Your task to perform on an android device: Go to CNN.com Image 0: 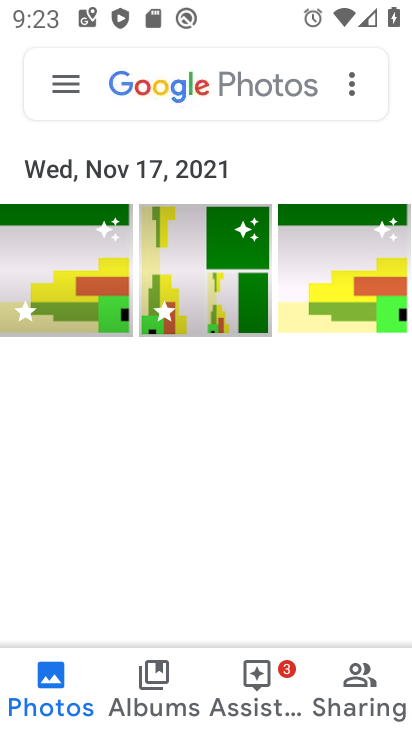
Step 0: press home button
Your task to perform on an android device: Go to CNN.com Image 1: 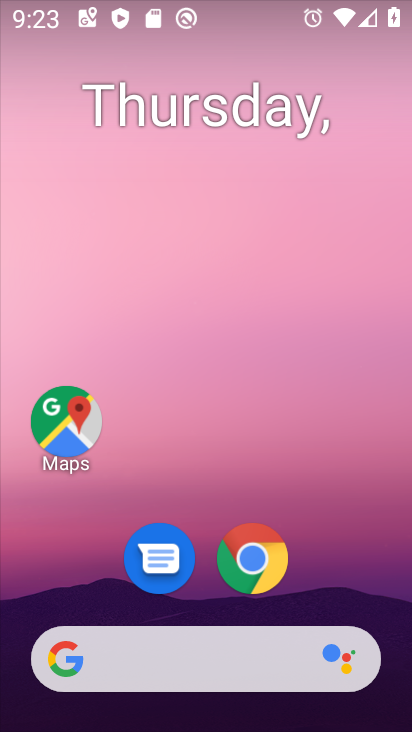
Step 1: click (255, 558)
Your task to perform on an android device: Go to CNN.com Image 2: 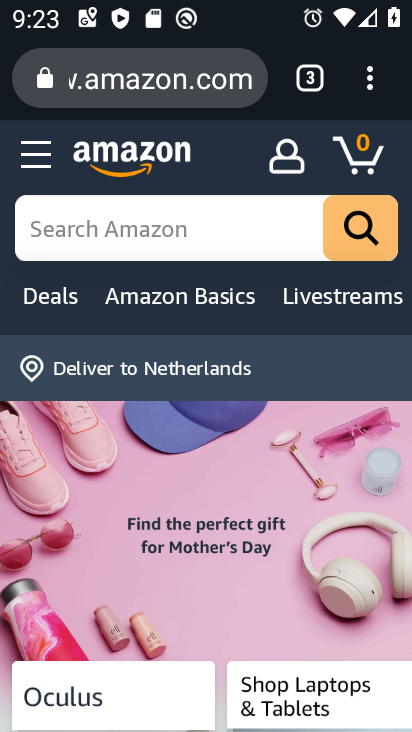
Step 2: click (125, 80)
Your task to perform on an android device: Go to CNN.com Image 3: 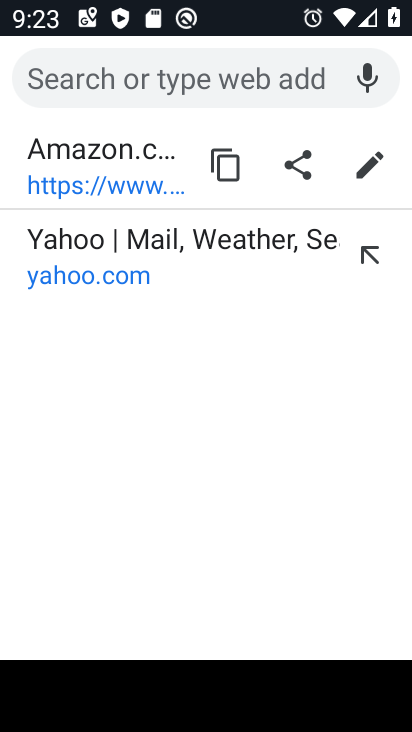
Step 3: type "cnn.com"
Your task to perform on an android device: Go to CNN.com Image 4: 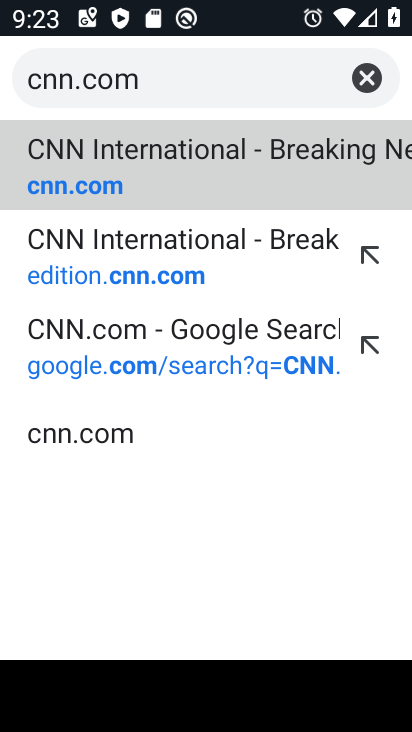
Step 4: click (108, 164)
Your task to perform on an android device: Go to CNN.com Image 5: 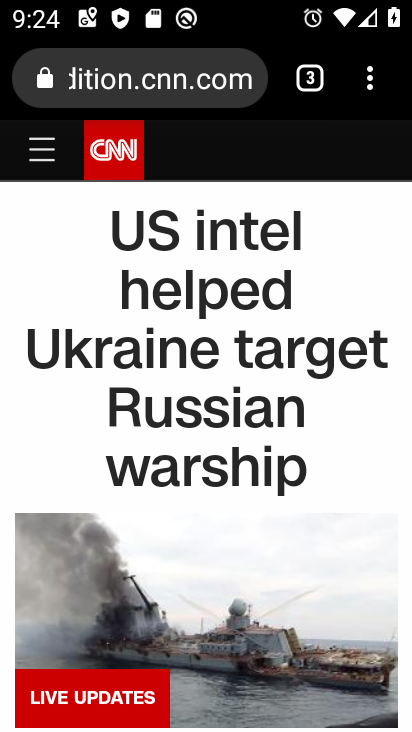
Step 5: task complete